Your task to perform on an android device: Go to Wikipedia Image 0: 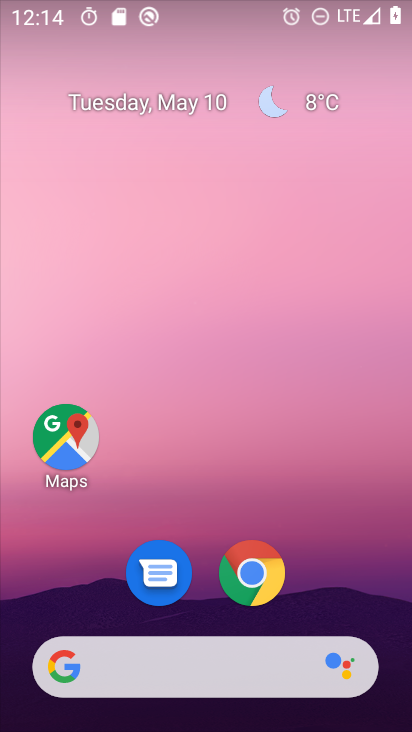
Step 0: drag from (314, 578) to (256, 169)
Your task to perform on an android device: Go to Wikipedia Image 1: 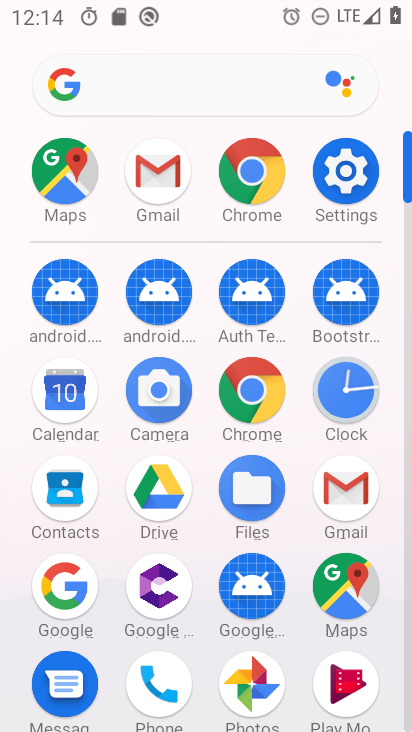
Step 1: click (263, 393)
Your task to perform on an android device: Go to Wikipedia Image 2: 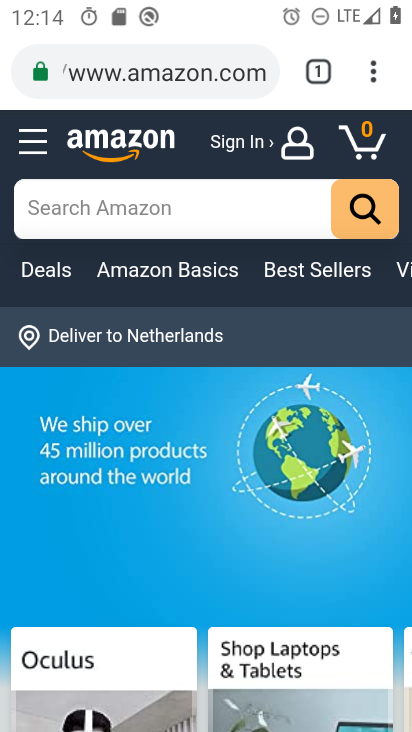
Step 2: click (232, 69)
Your task to perform on an android device: Go to Wikipedia Image 3: 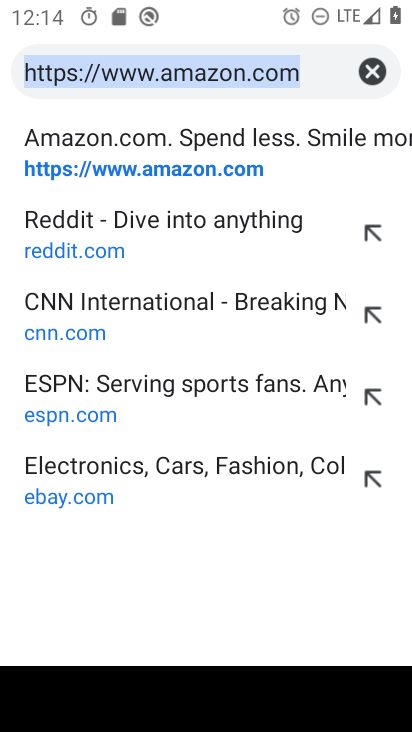
Step 3: type "wikipedia"
Your task to perform on an android device: Go to Wikipedia Image 4: 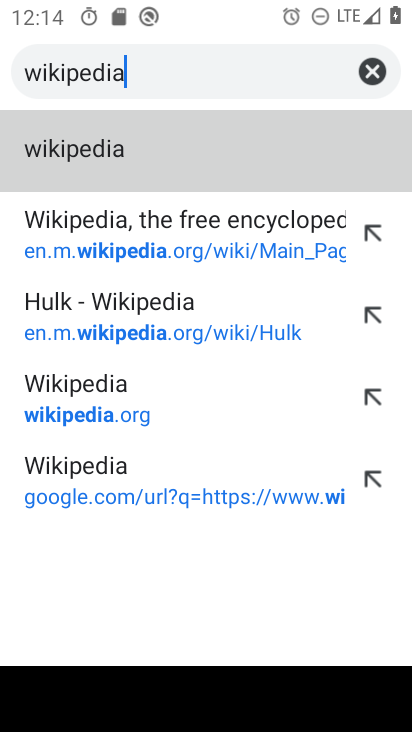
Step 4: click (97, 149)
Your task to perform on an android device: Go to Wikipedia Image 5: 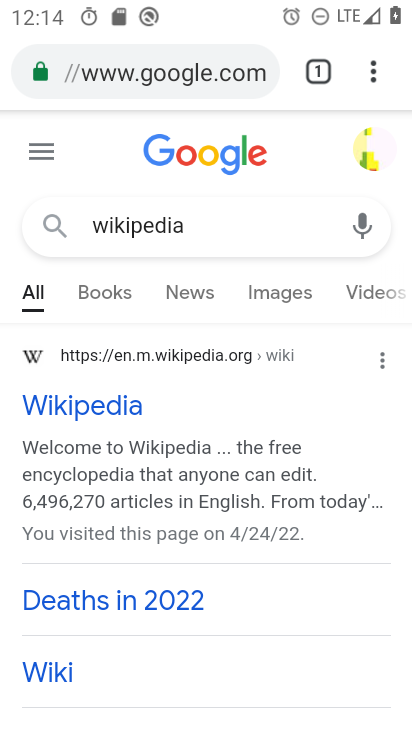
Step 5: click (124, 403)
Your task to perform on an android device: Go to Wikipedia Image 6: 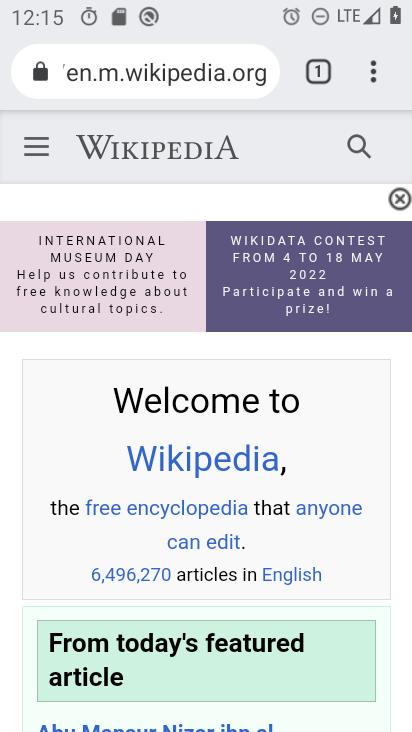
Step 6: task complete